Your task to perform on an android device: toggle pop-ups in chrome Image 0: 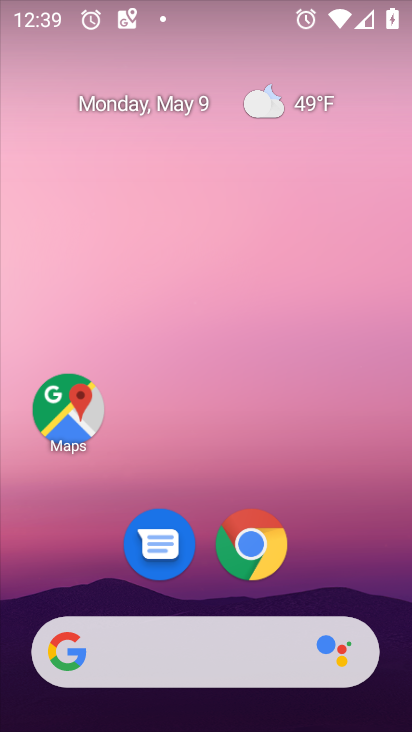
Step 0: click (137, 33)
Your task to perform on an android device: toggle pop-ups in chrome Image 1: 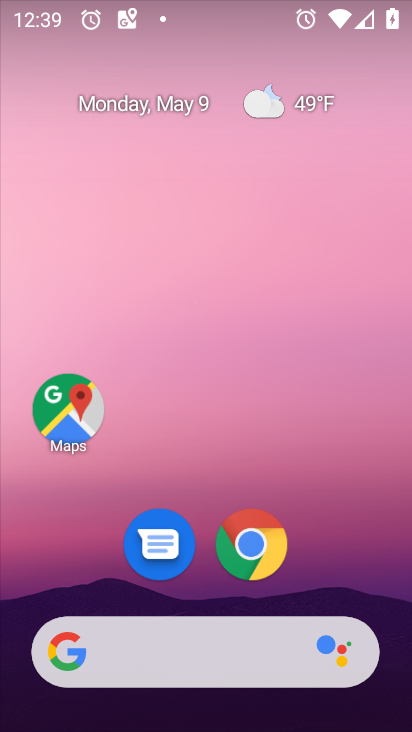
Step 1: click (263, 531)
Your task to perform on an android device: toggle pop-ups in chrome Image 2: 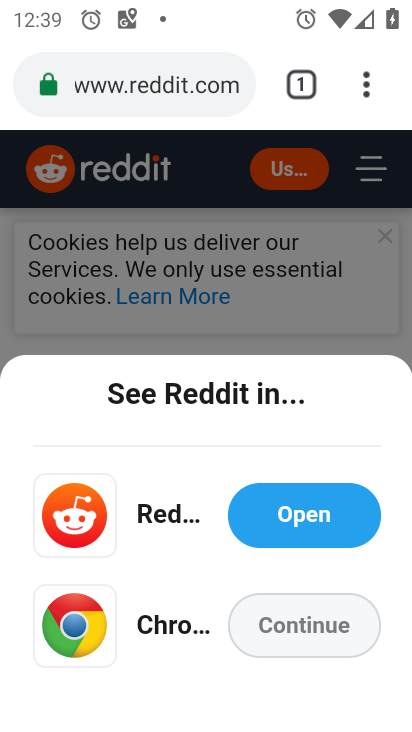
Step 2: click (353, 84)
Your task to perform on an android device: toggle pop-ups in chrome Image 3: 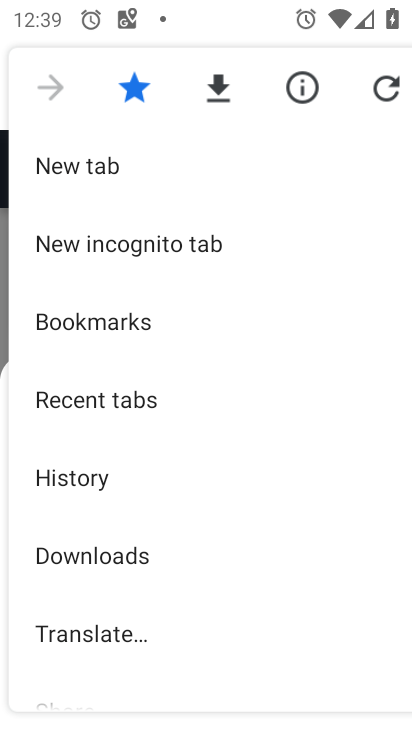
Step 3: drag from (119, 590) to (146, 142)
Your task to perform on an android device: toggle pop-ups in chrome Image 4: 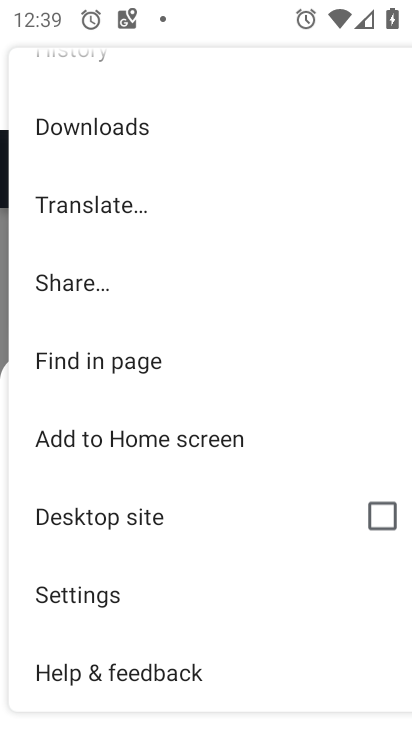
Step 4: click (96, 604)
Your task to perform on an android device: toggle pop-ups in chrome Image 5: 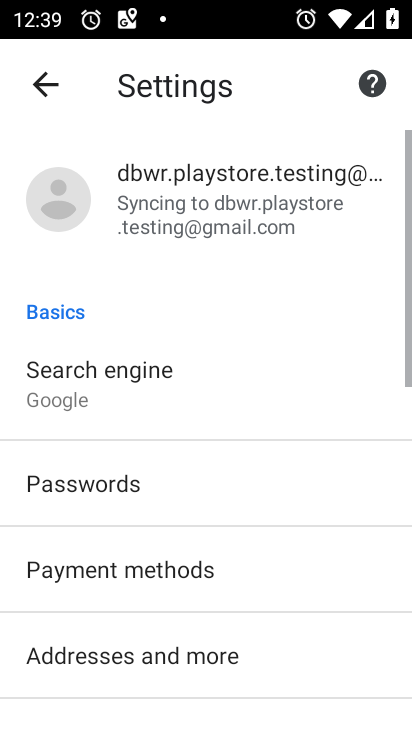
Step 5: drag from (163, 565) to (144, 215)
Your task to perform on an android device: toggle pop-ups in chrome Image 6: 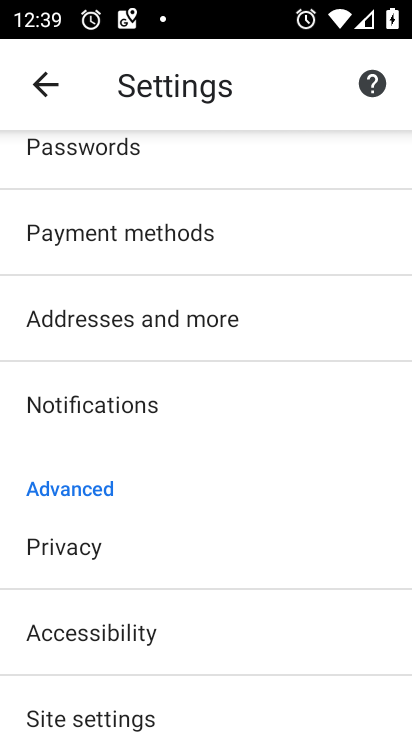
Step 6: drag from (130, 669) to (133, 294)
Your task to perform on an android device: toggle pop-ups in chrome Image 7: 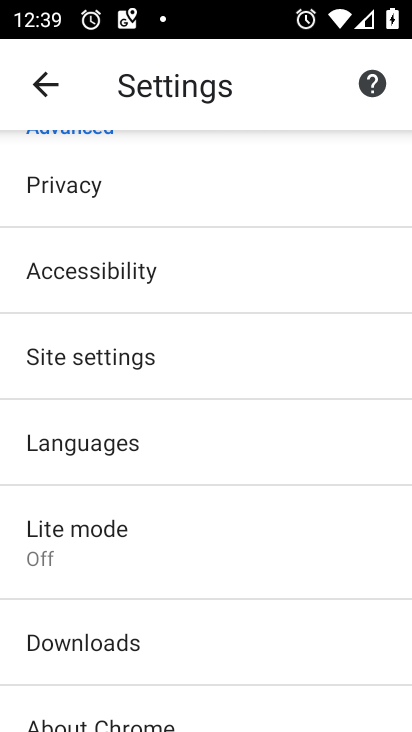
Step 7: click (114, 343)
Your task to perform on an android device: toggle pop-ups in chrome Image 8: 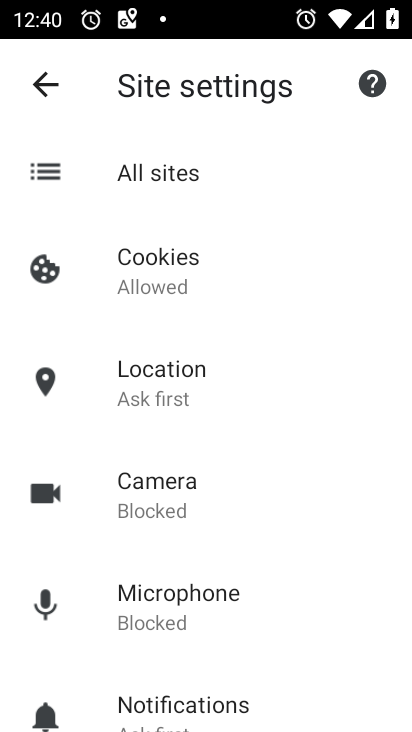
Step 8: drag from (188, 486) to (193, 137)
Your task to perform on an android device: toggle pop-ups in chrome Image 9: 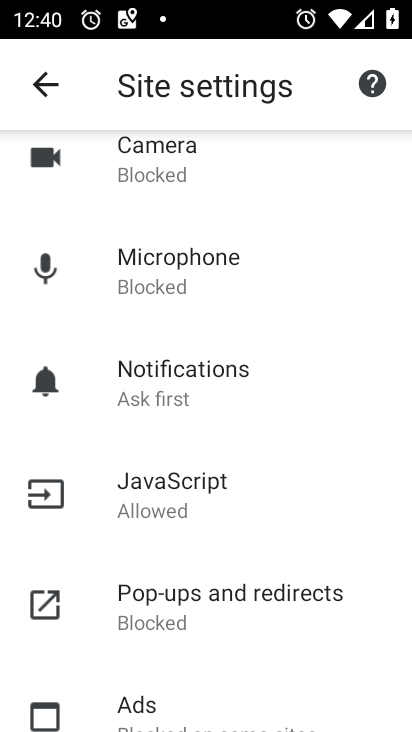
Step 9: click (231, 579)
Your task to perform on an android device: toggle pop-ups in chrome Image 10: 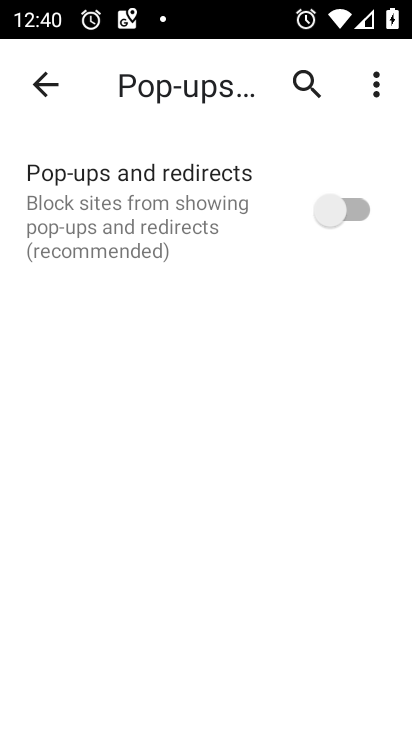
Step 10: click (351, 203)
Your task to perform on an android device: toggle pop-ups in chrome Image 11: 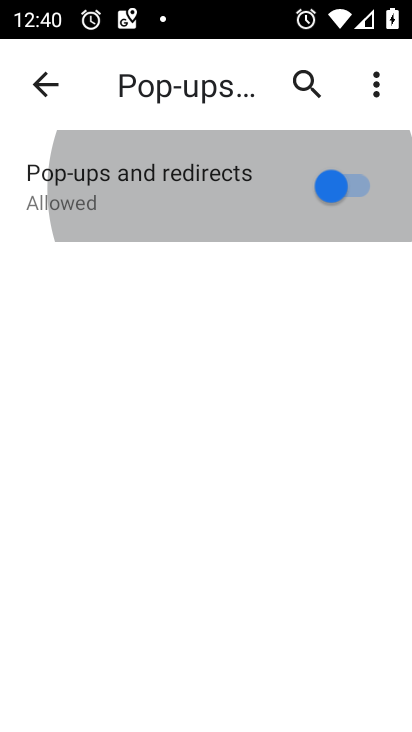
Step 11: task complete